Your task to perform on an android device: toggle javascript in the chrome app Image 0: 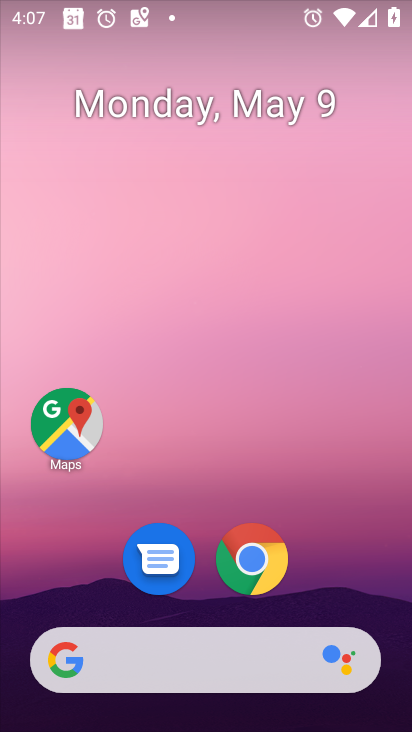
Step 0: click (250, 565)
Your task to perform on an android device: toggle javascript in the chrome app Image 1: 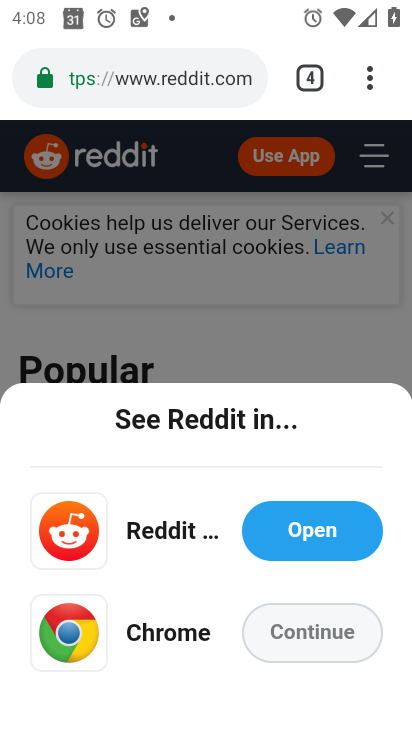
Step 1: click (369, 86)
Your task to perform on an android device: toggle javascript in the chrome app Image 2: 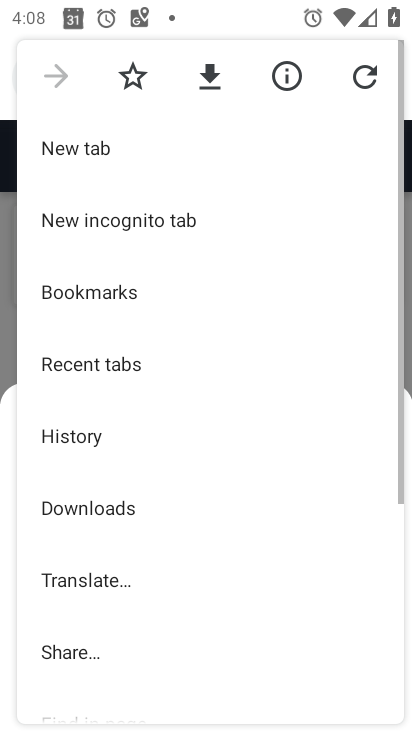
Step 2: drag from (154, 641) to (159, 236)
Your task to perform on an android device: toggle javascript in the chrome app Image 3: 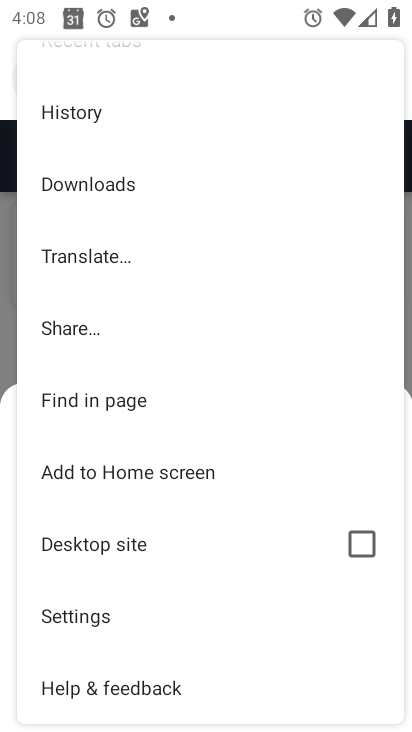
Step 3: click (93, 614)
Your task to perform on an android device: toggle javascript in the chrome app Image 4: 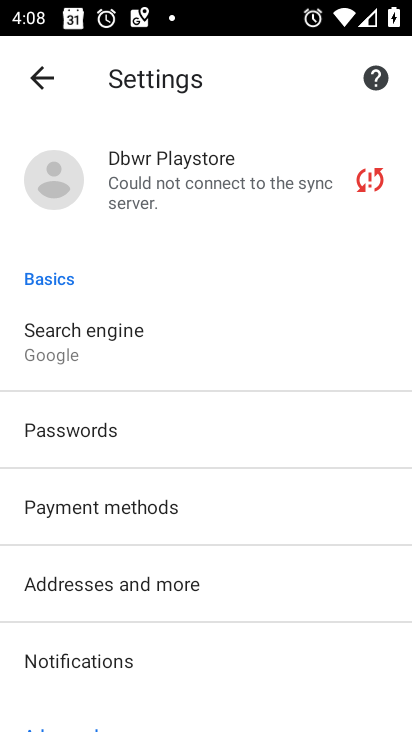
Step 4: drag from (146, 663) to (159, 346)
Your task to perform on an android device: toggle javascript in the chrome app Image 5: 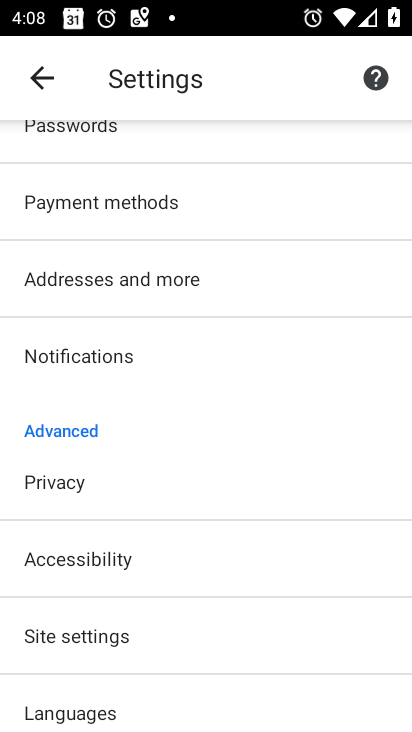
Step 5: drag from (143, 662) to (140, 347)
Your task to perform on an android device: toggle javascript in the chrome app Image 6: 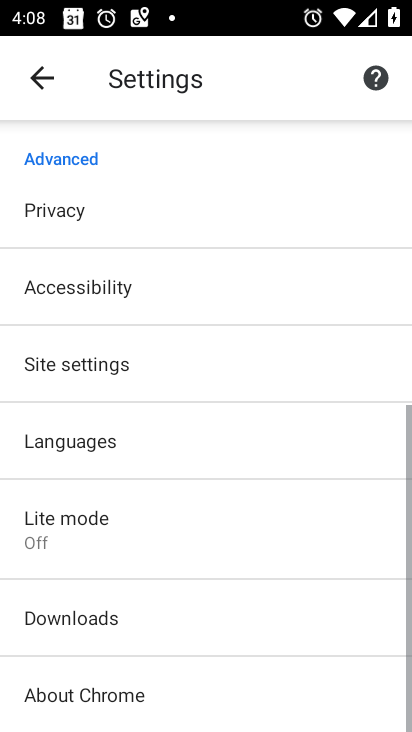
Step 6: click (83, 360)
Your task to perform on an android device: toggle javascript in the chrome app Image 7: 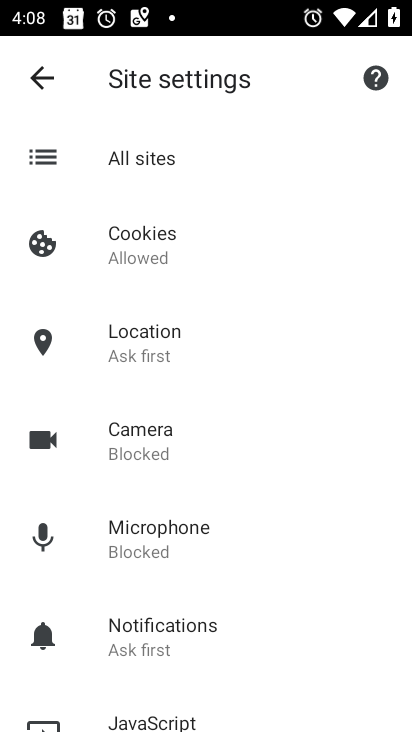
Step 7: drag from (183, 679) to (185, 285)
Your task to perform on an android device: toggle javascript in the chrome app Image 8: 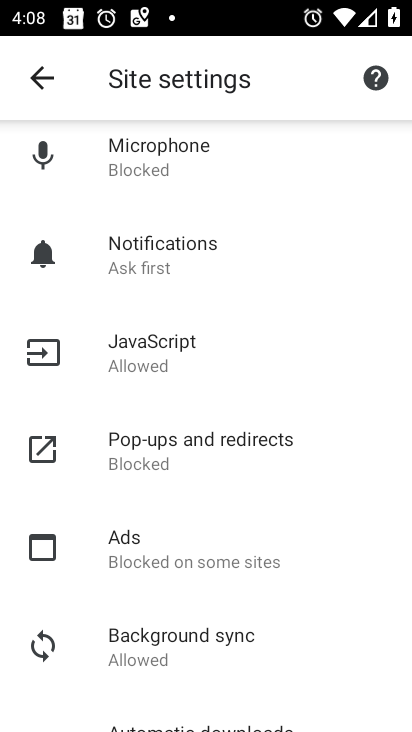
Step 8: click (142, 355)
Your task to perform on an android device: toggle javascript in the chrome app Image 9: 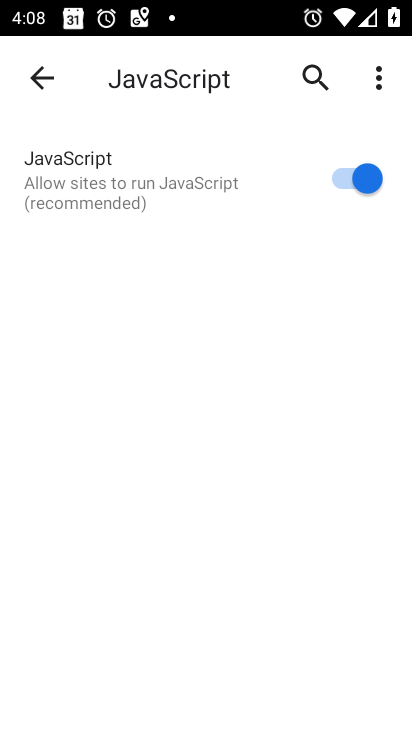
Step 9: click (347, 182)
Your task to perform on an android device: toggle javascript in the chrome app Image 10: 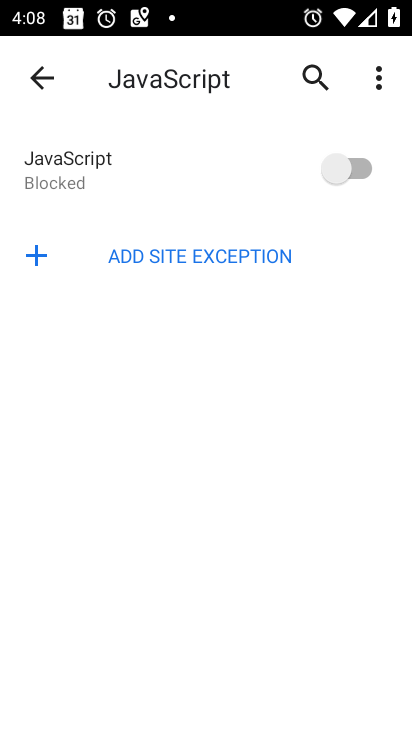
Step 10: task complete